Your task to perform on an android device: View the shopping cart on bestbuy. Image 0: 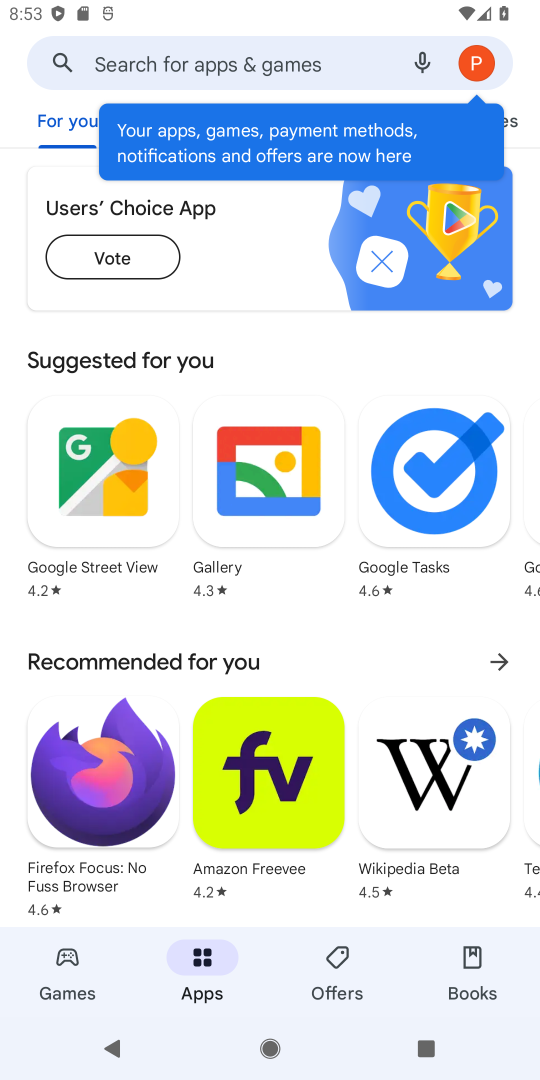
Step 0: click (206, 61)
Your task to perform on an android device: View the shopping cart on bestbuy. Image 1: 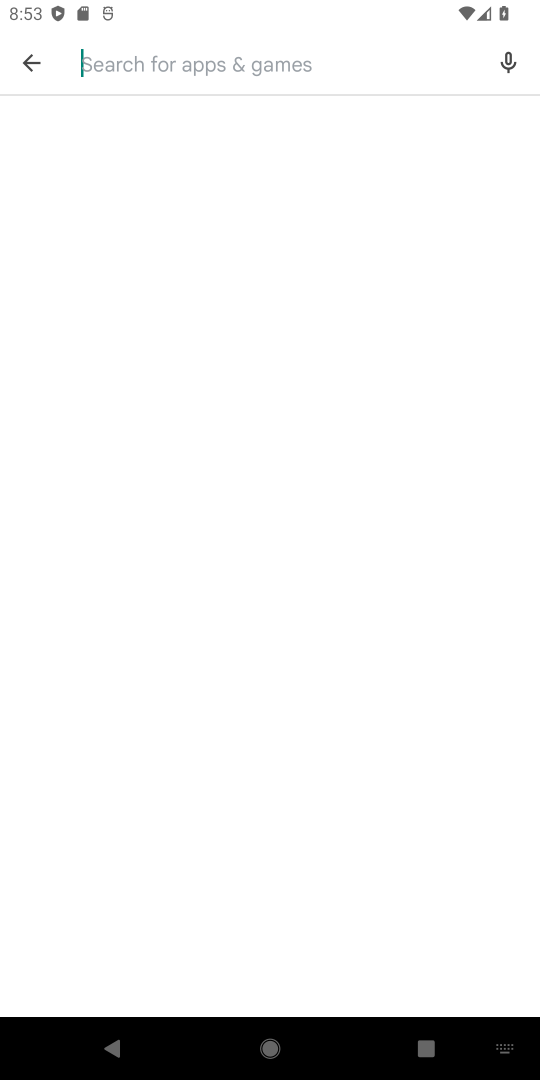
Step 1: type "bestbuy"
Your task to perform on an android device: View the shopping cart on bestbuy. Image 2: 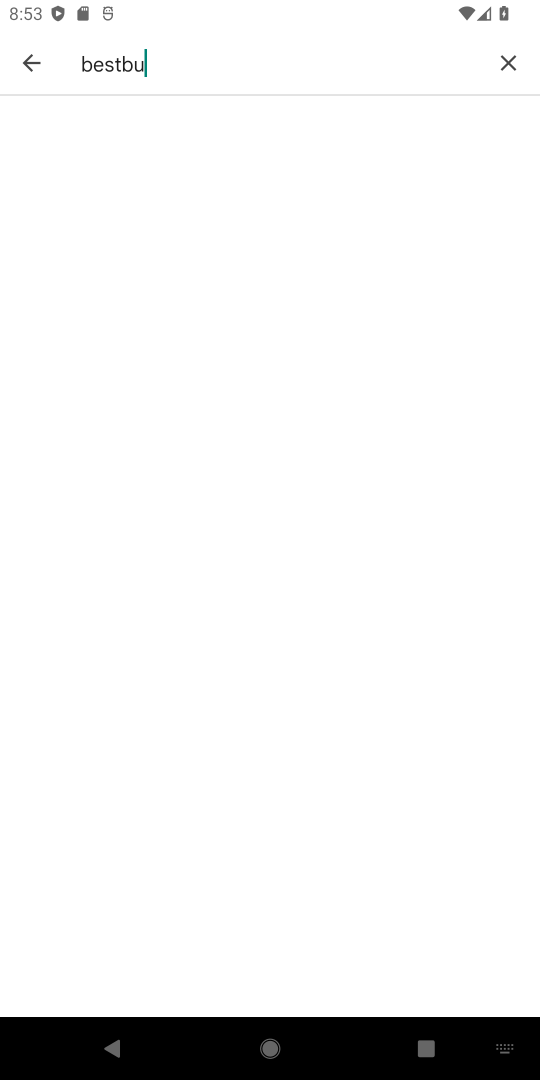
Step 2: type ""
Your task to perform on an android device: View the shopping cart on bestbuy. Image 3: 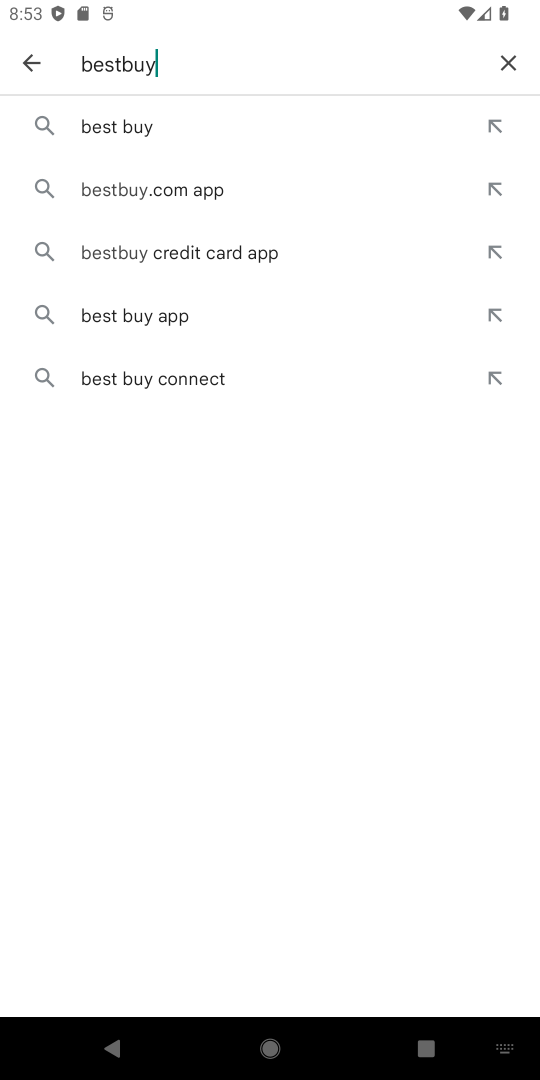
Step 3: press enter
Your task to perform on an android device: View the shopping cart on bestbuy. Image 4: 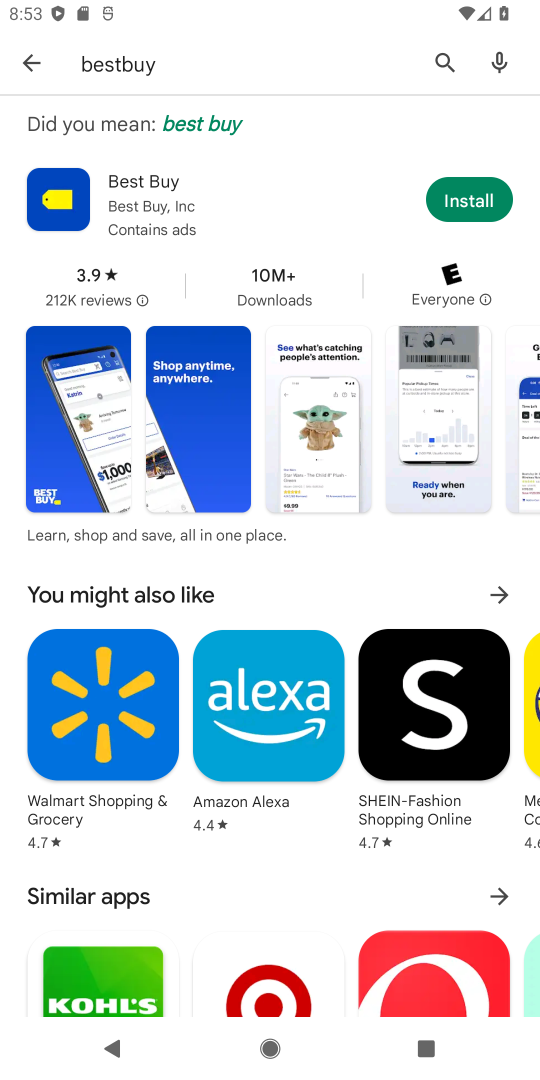
Step 4: press home button
Your task to perform on an android device: View the shopping cart on bestbuy. Image 5: 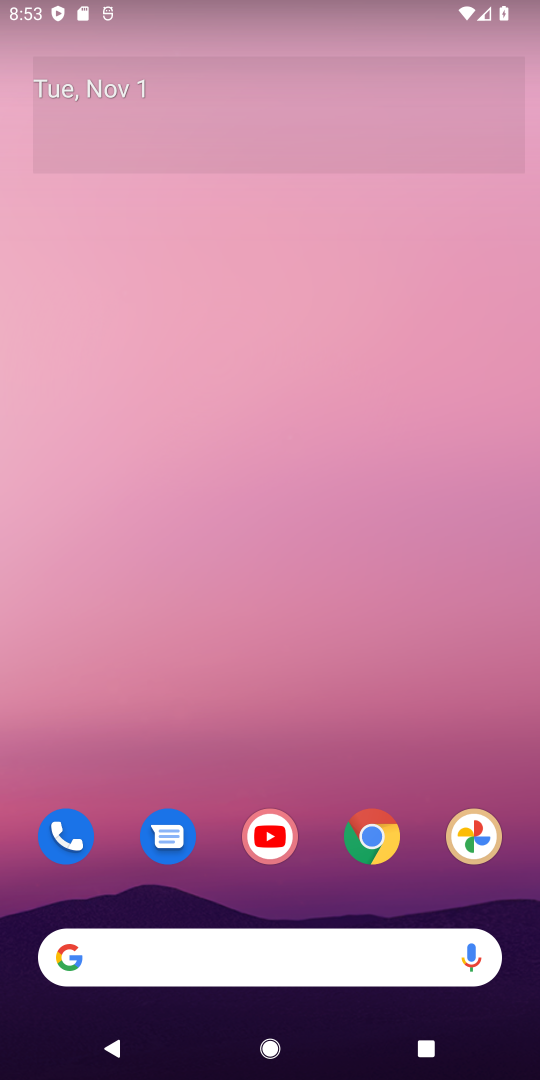
Step 5: click (367, 841)
Your task to perform on an android device: View the shopping cart on bestbuy. Image 6: 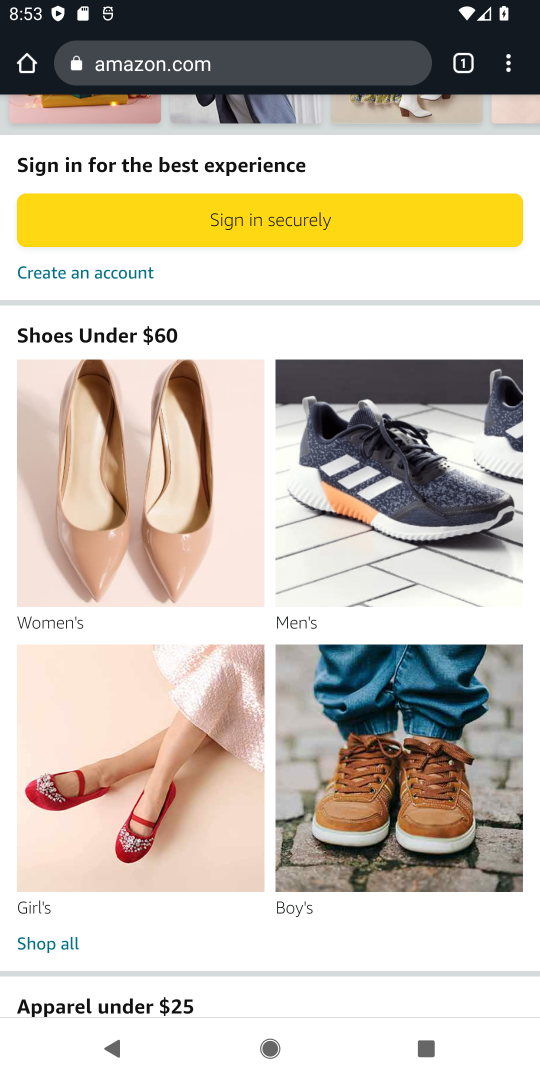
Step 6: click (152, 70)
Your task to perform on an android device: View the shopping cart on bestbuy. Image 7: 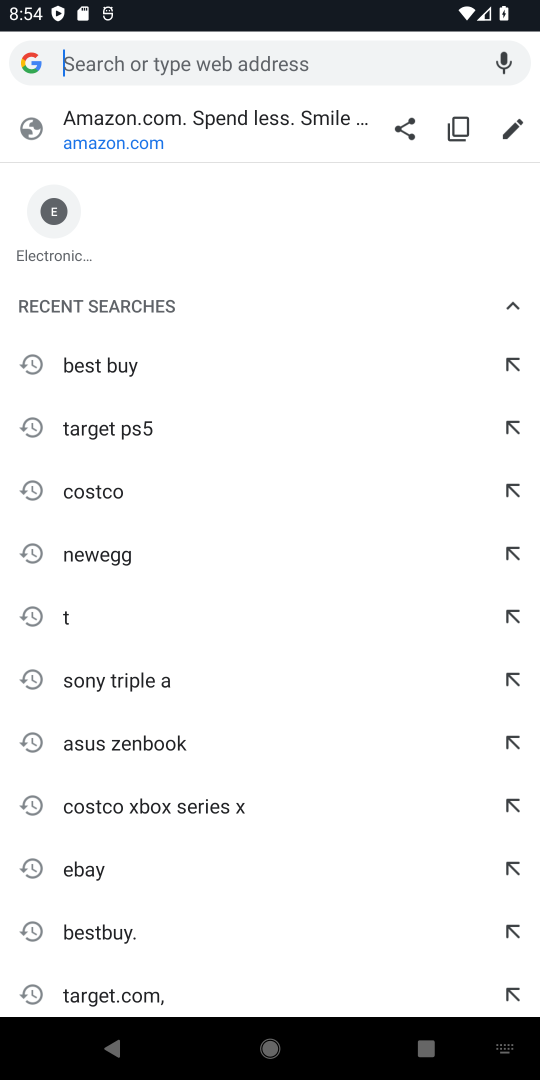
Step 7: type "bestbuy"
Your task to perform on an android device: View the shopping cart on bestbuy. Image 8: 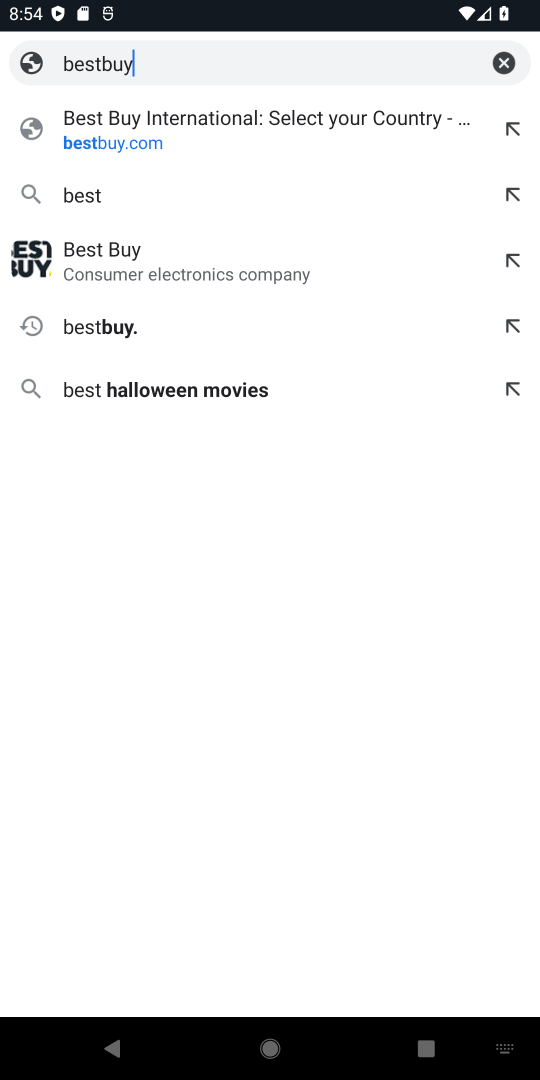
Step 8: type ""
Your task to perform on an android device: View the shopping cart on bestbuy. Image 9: 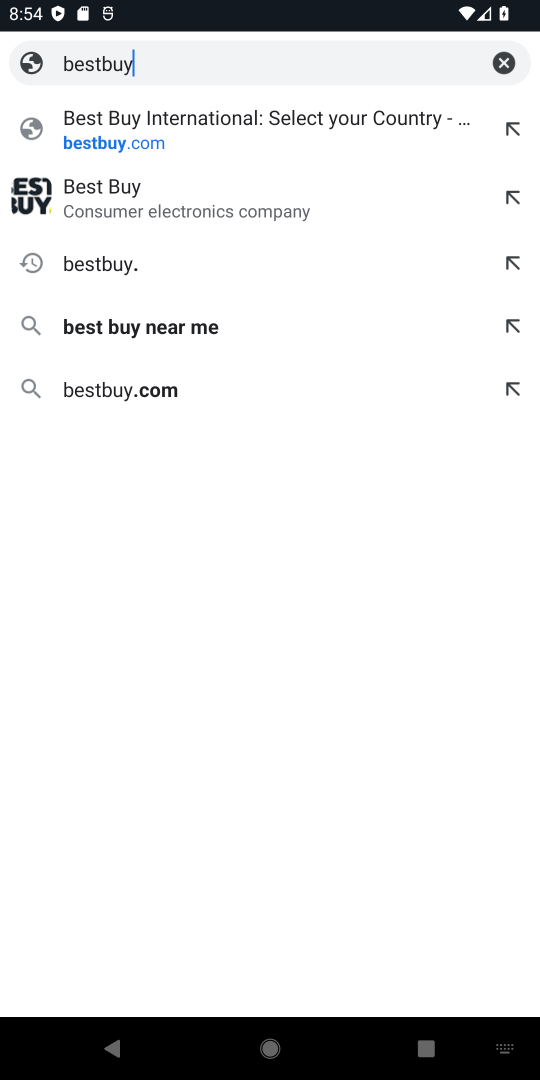
Step 9: click (251, 132)
Your task to perform on an android device: View the shopping cart on bestbuy. Image 10: 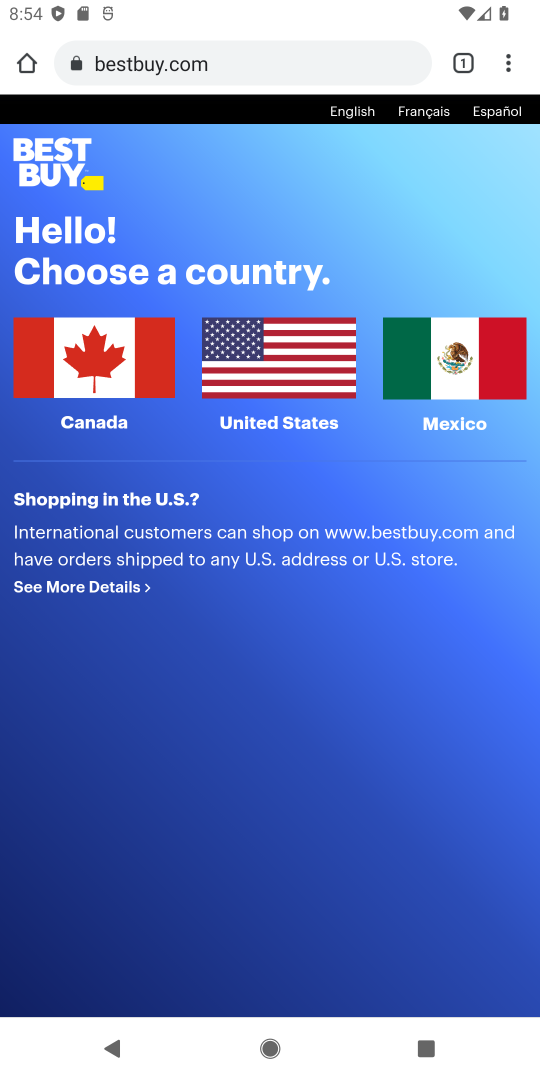
Step 10: click (135, 369)
Your task to perform on an android device: View the shopping cart on bestbuy. Image 11: 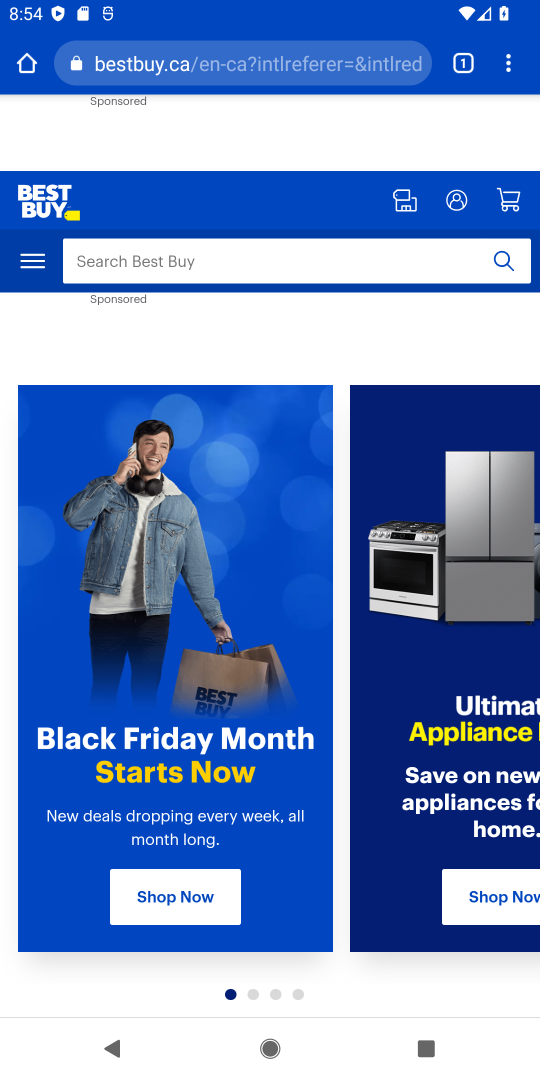
Step 11: click (503, 193)
Your task to perform on an android device: View the shopping cart on bestbuy. Image 12: 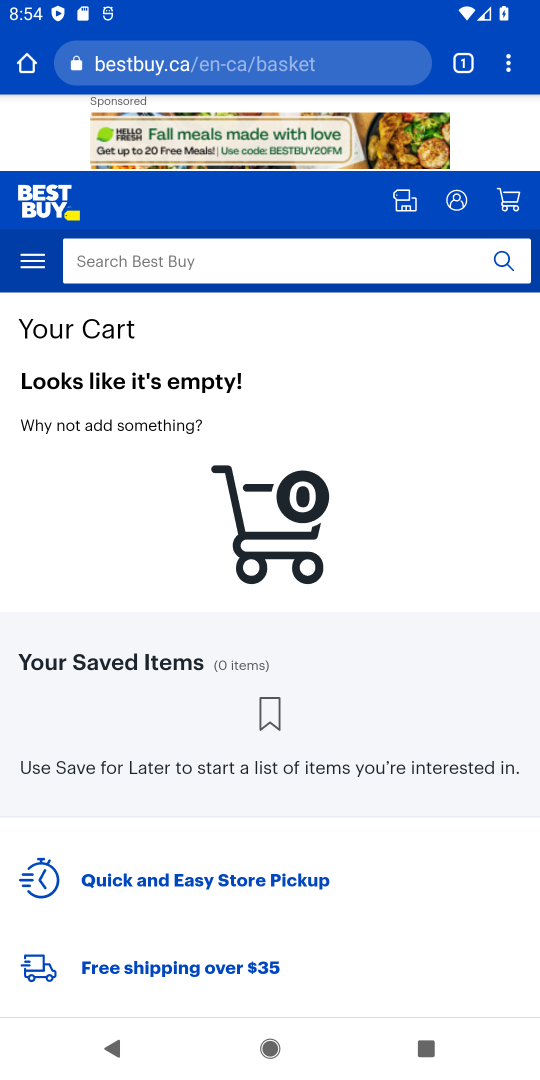
Step 12: drag from (278, 698) to (343, 375)
Your task to perform on an android device: View the shopping cart on bestbuy. Image 13: 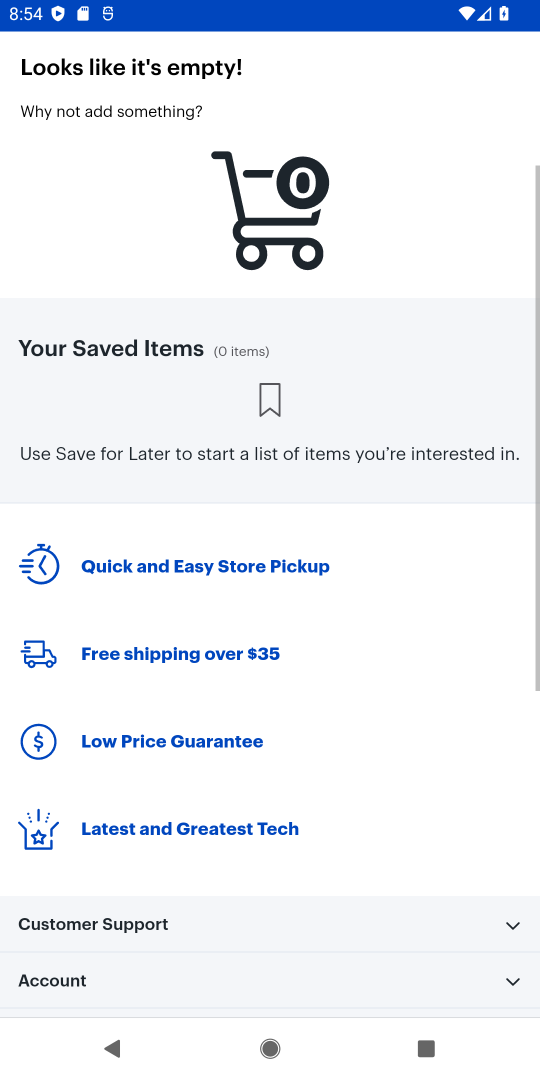
Step 13: drag from (275, 749) to (346, 379)
Your task to perform on an android device: View the shopping cart on bestbuy. Image 14: 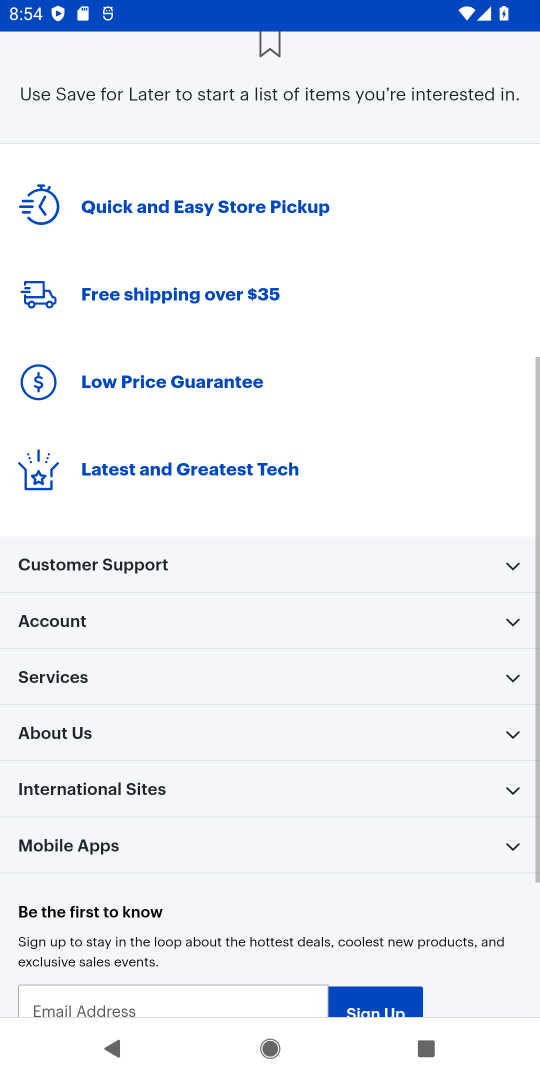
Step 14: drag from (305, 814) to (333, 471)
Your task to perform on an android device: View the shopping cart on bestbuy. Image 15: 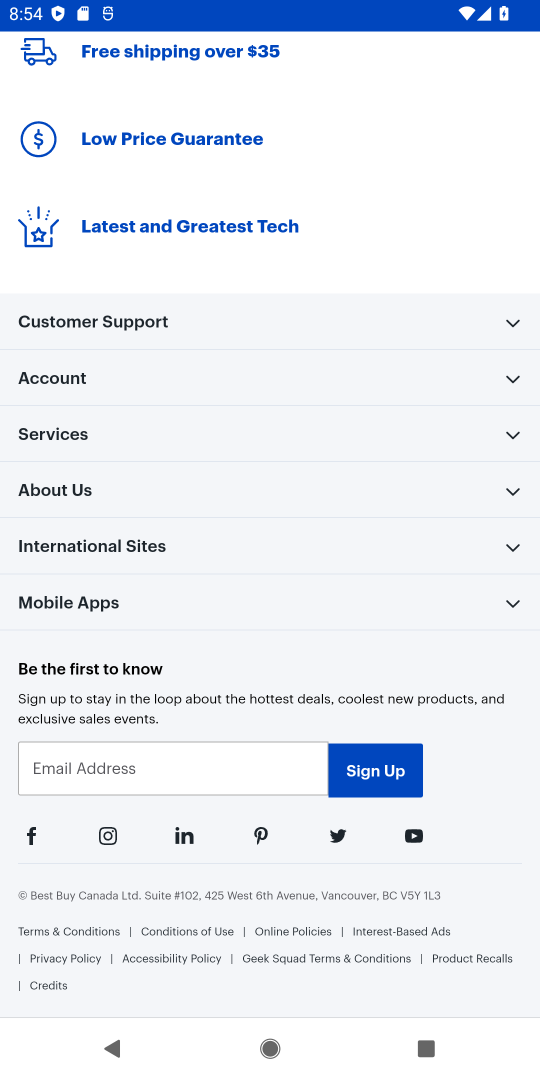
Step 15: drag from (412, 490) to (412, 298)
Your task to perform on an android device: View the shopping cart on bestbuy. Image 16: 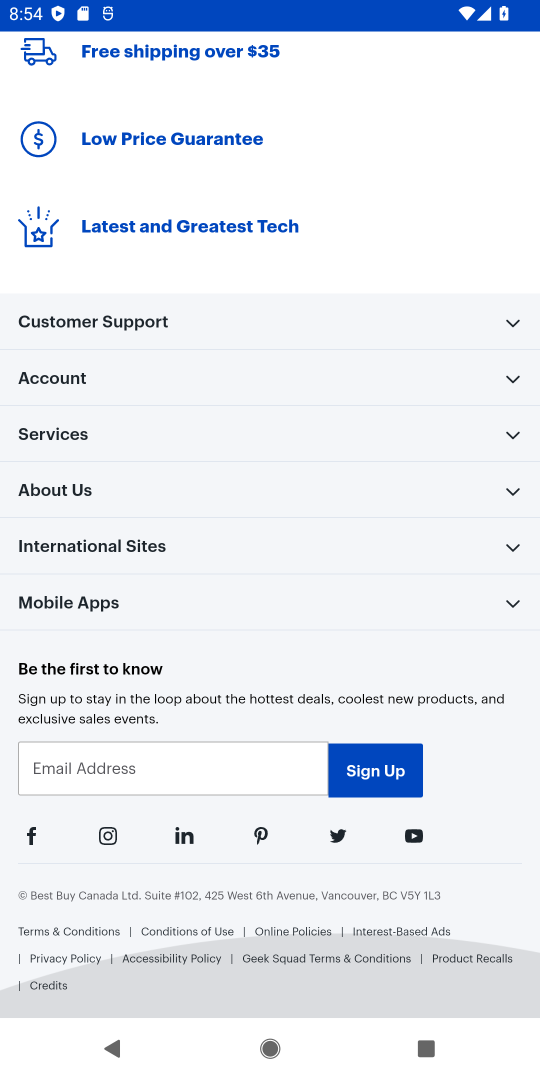
Step 16: drag from (400, 400) to (412, 314)
Your task to perform on an android device: View the shopping cart on bestbuy. Image 17: 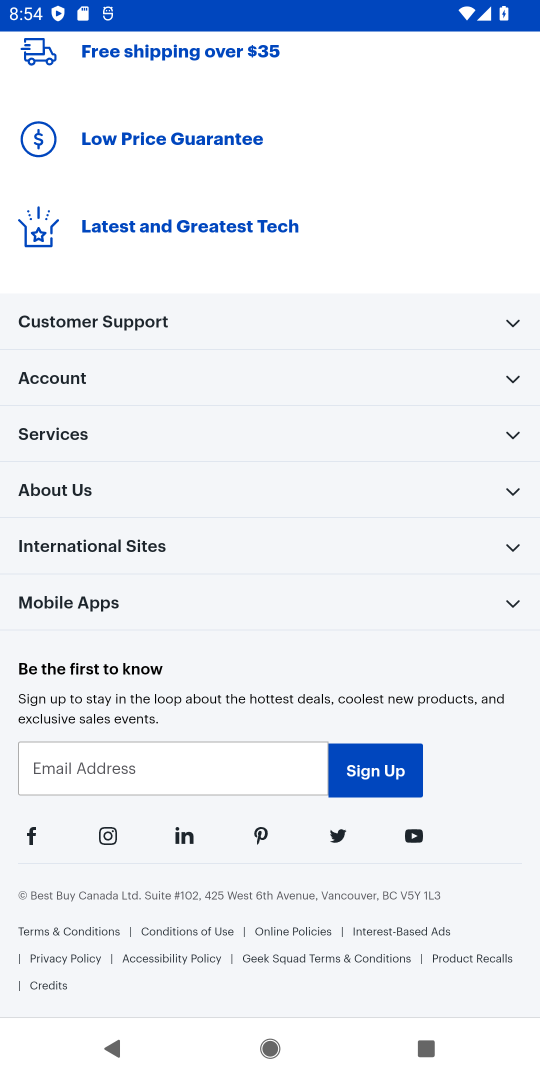
Step 17: drag from (263, 292) to (276, 774)
Your task to perform on an android device: View the shopping cart on bestbuy. Image 18: 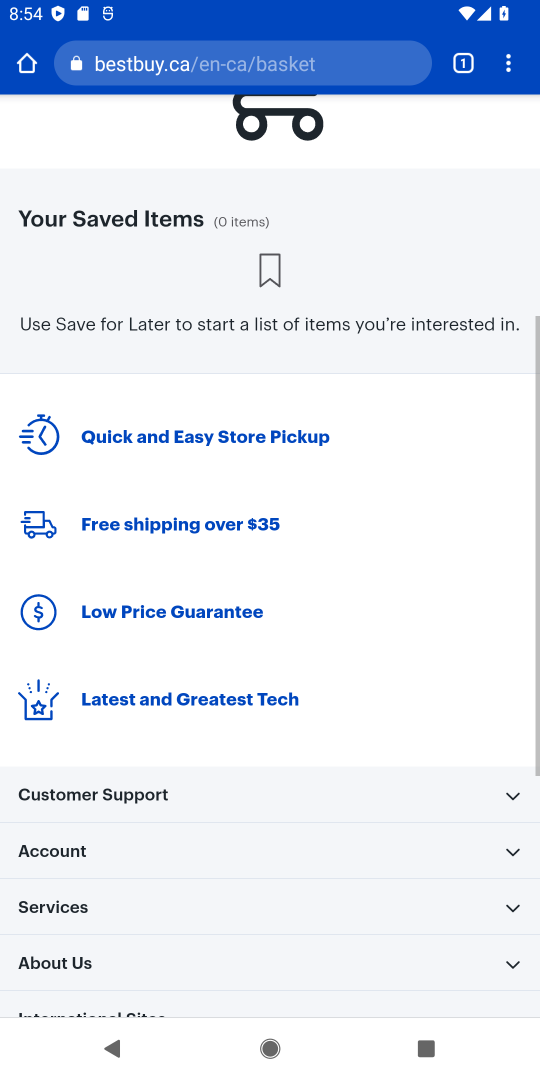
Step 18: drag from (375, 296) to (382, 672)
Your task to perform on an android device: View the shopping cart on bestbuy. Image 19: 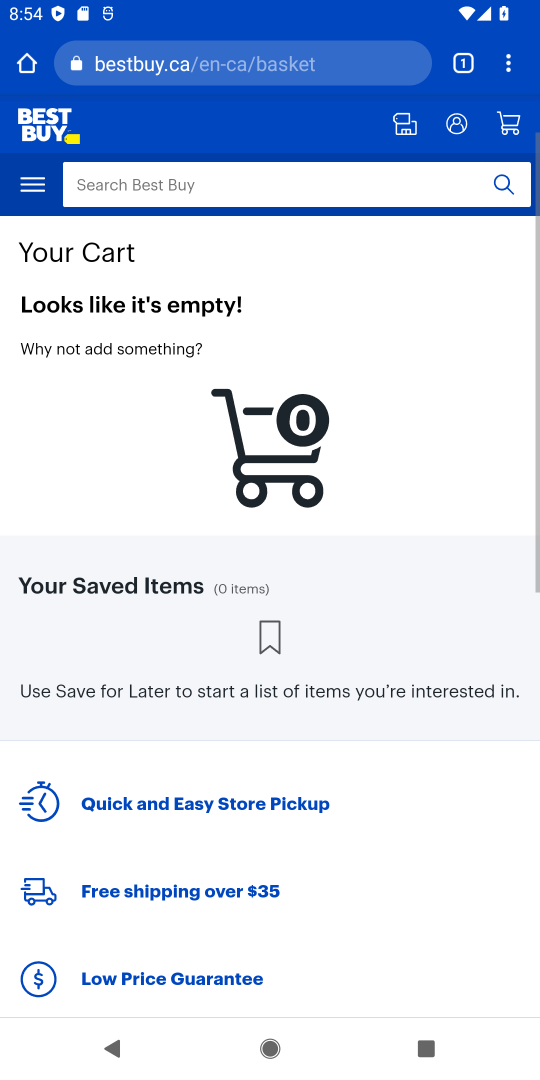
Step 19: drag from (396, 347) to (416, 588)
Your task to perform on an android device: View the shopping cart on bestbuy. Image 20: 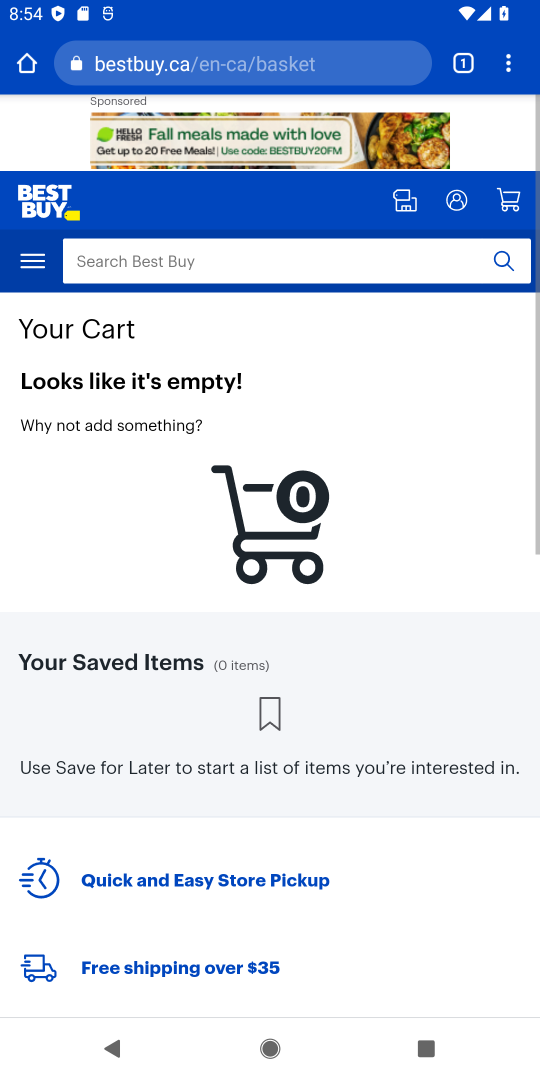
Step 20: drag from (353, 376) to (351, 510)
Your task to perform on an android device: View the shopping cart on bestbuy. Image 21: 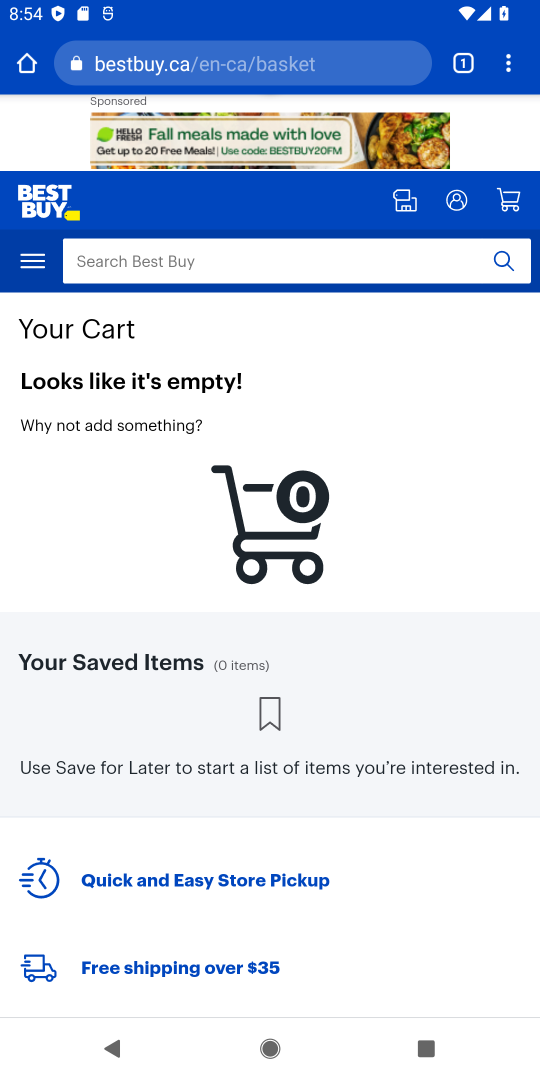
Step 21: press back button
Your task to perform on an android device: View the shopping cart on bestbuy. Image 22: 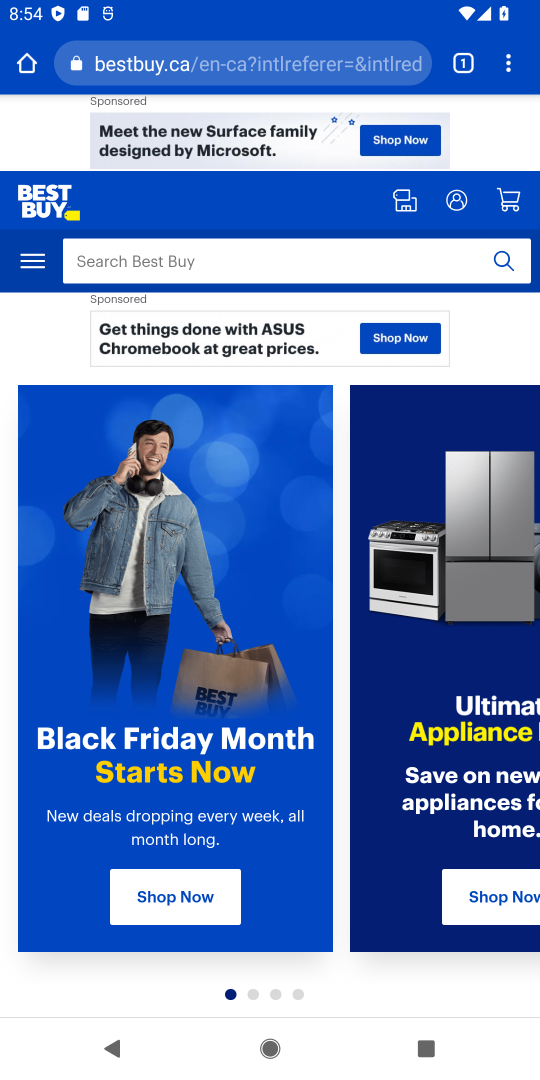
Step 22: click (510, 208)
Your task to perform on an android device: View the shopping cart on bestbuy. Image 23: 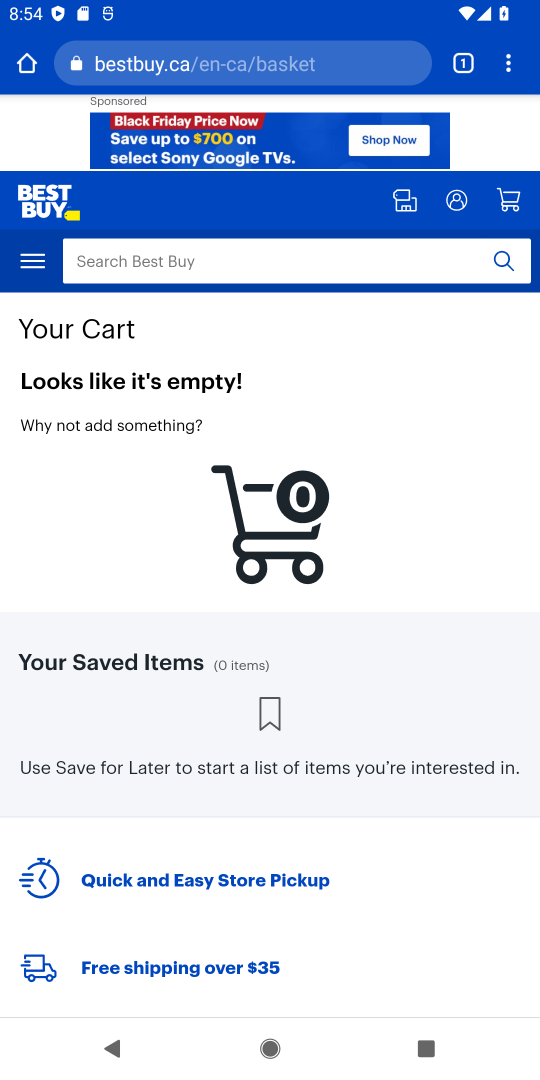
Step 23: drag from (326, 731) to (349, 339)
Your task to perform on an android device: View the shopping cart on bestbuy. Image 24: 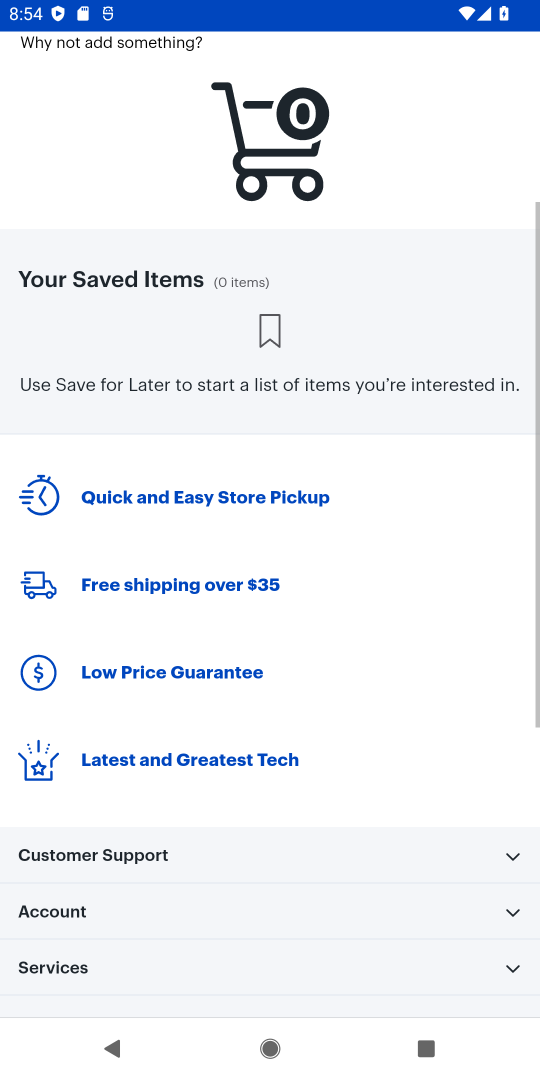
Step 24: drag from (313, 662) to (347, 477)
Your task to perform on an android device: View the shopping cart on bestbuy. Image 25: 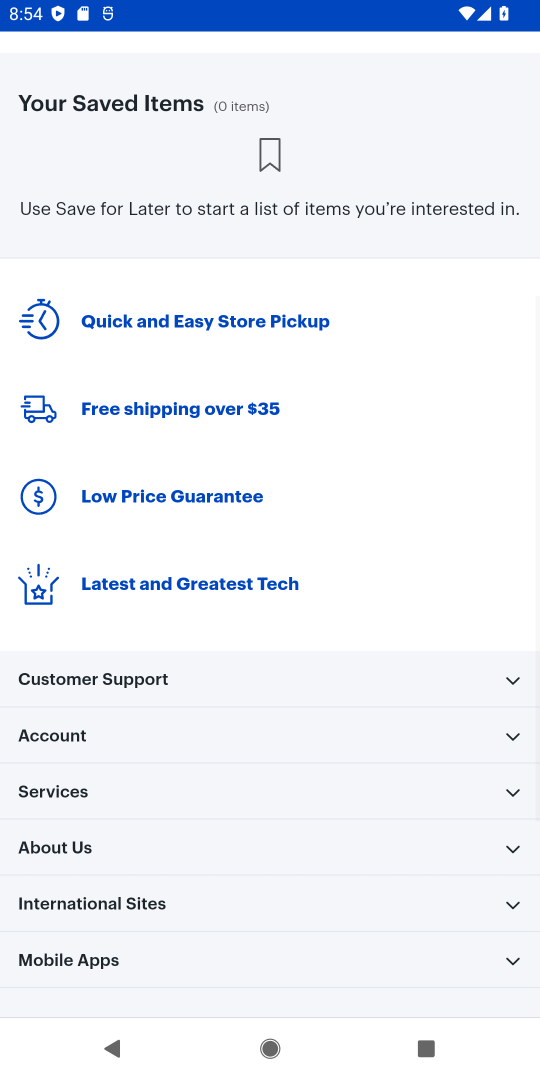
Step 25: press back button
Your task to perform on an android device: View the shopping cart on bestbuy. Image 26: 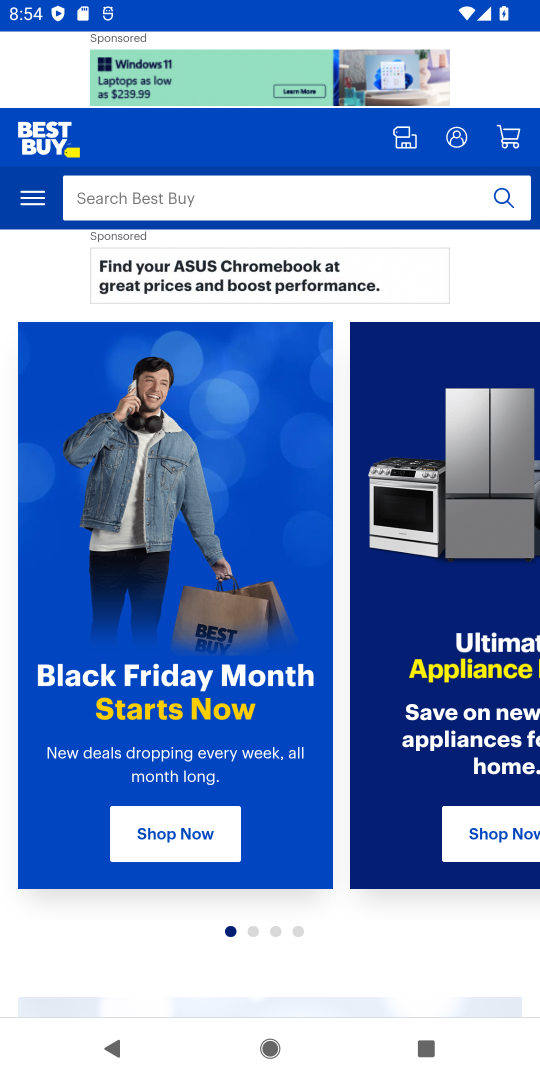
Step 26: drag from (385, 790) to (362, 398)
Your task to perform on an android device: View the shopping cart on bestbuy. Image 27: 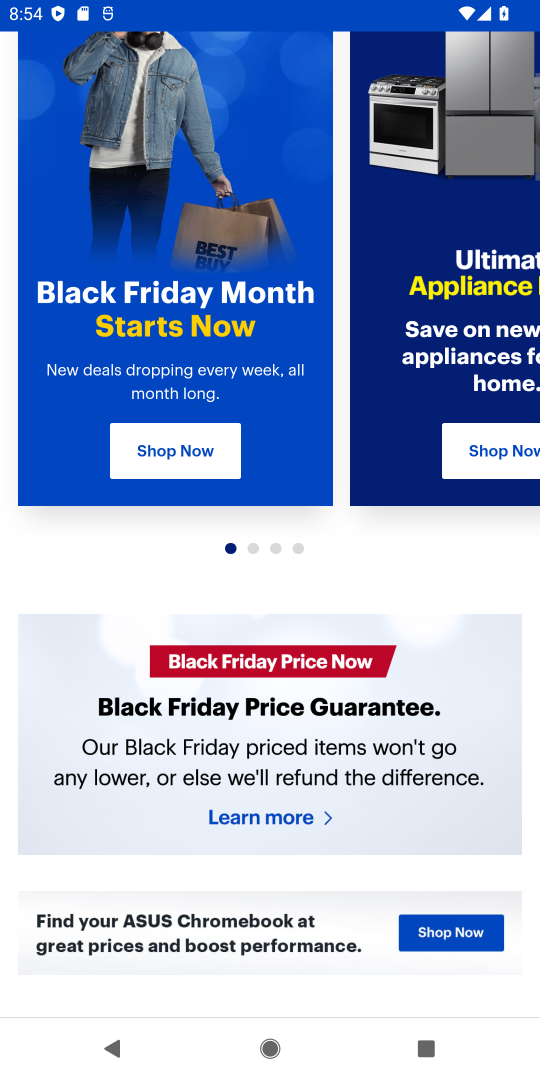
Step 27: drag from (356, 655) to (370, 441)
Your task to perform on an android device: View the shopping cart on bestbuy. Image 28: 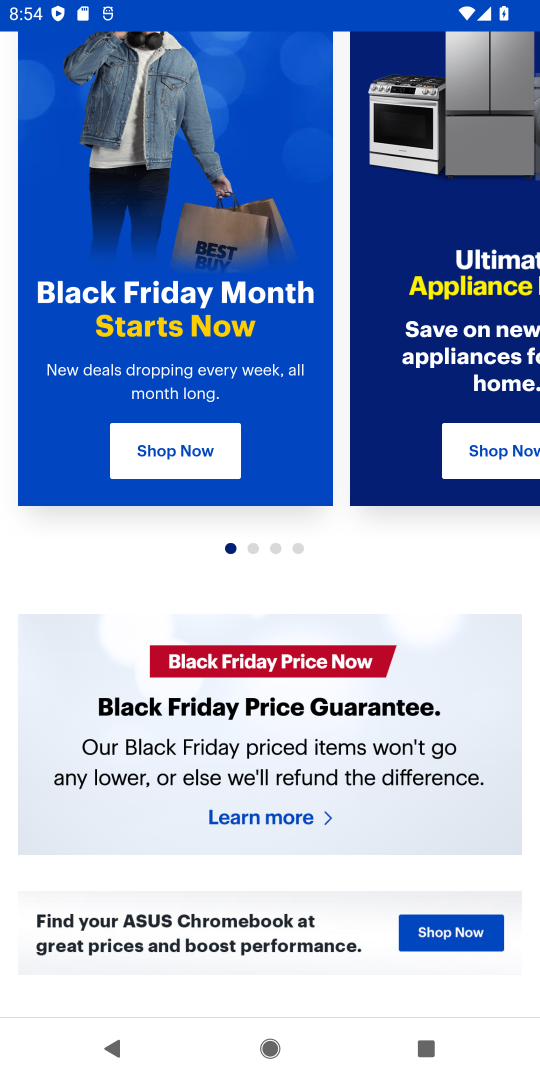
Step 28: drag from (333, 748) to (368, 422)
Your task to perform on an android device: View the shopping cart on bestbuy. Image 29: 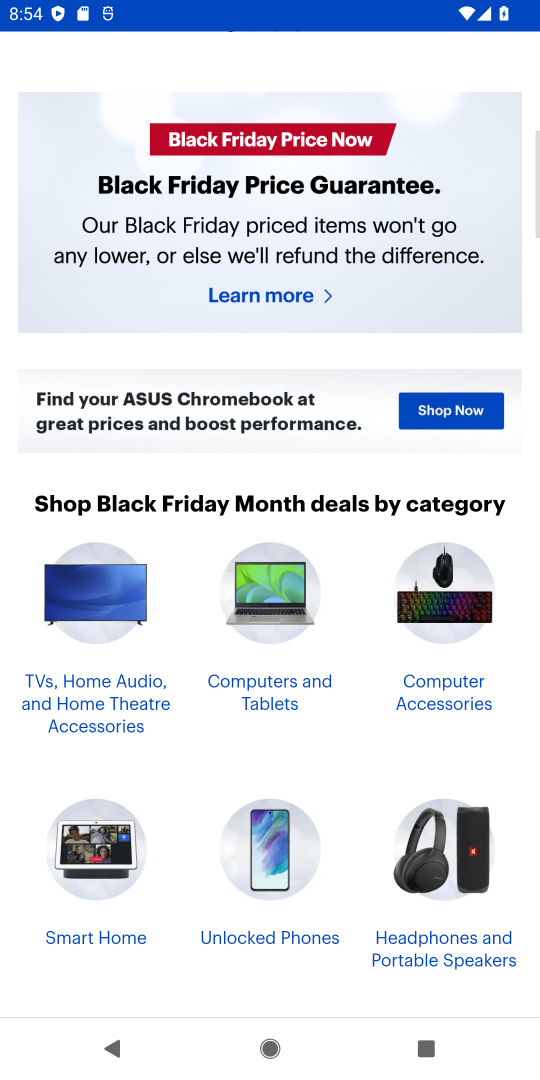
Step 29: drag from (313, 431) to (331, 309)
Your task to perform on an android device: View the shopping cart on bestbuy. Image 30: 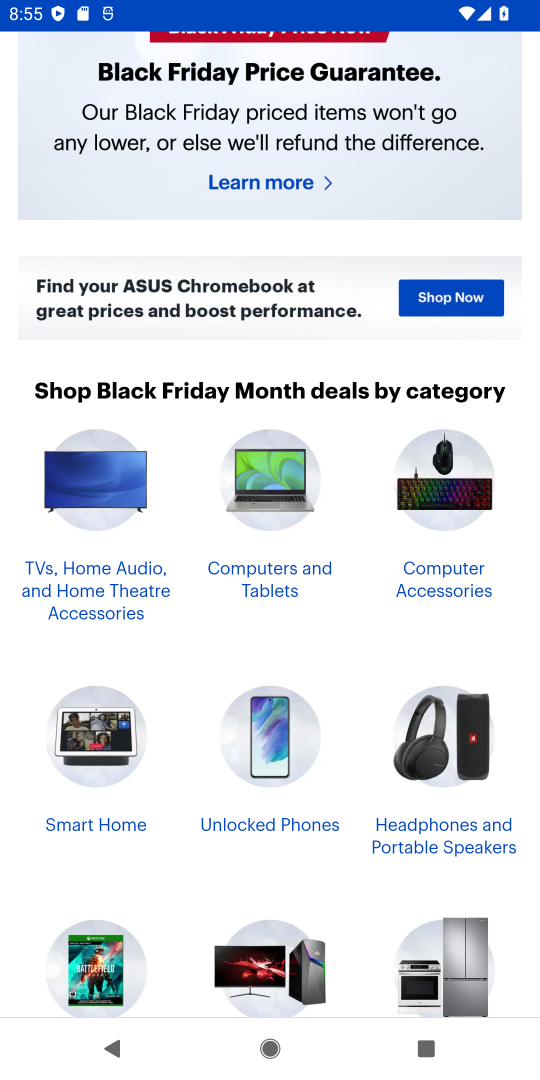
Step 30: click (265, 549)
Your task to perform on an android device: View the shopping cart on bestbuy. Image 31: 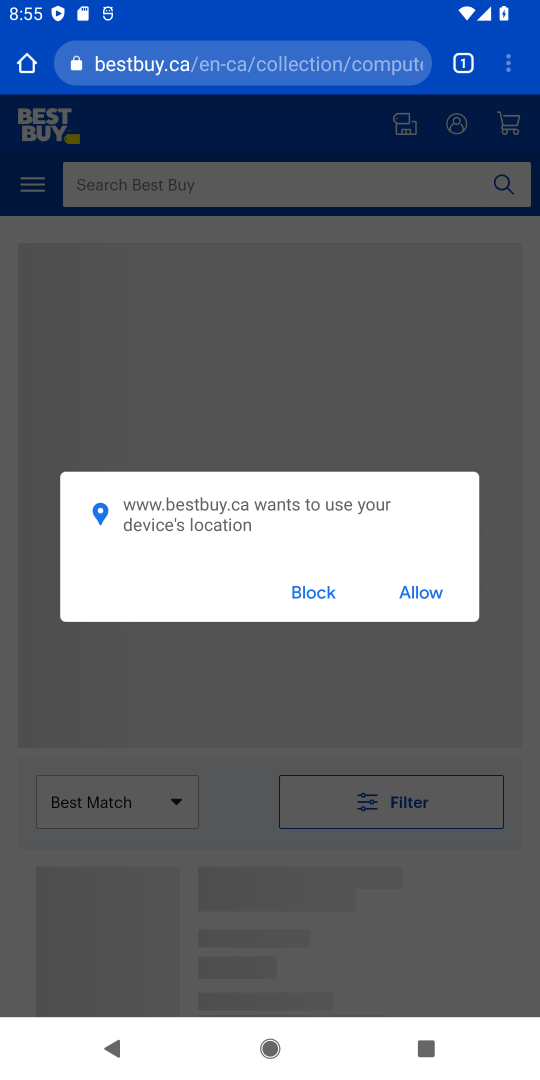
Step 31: click (301, 588)
Your task to perform on an android device: View the shopping cart on bestbuy. Image 32: 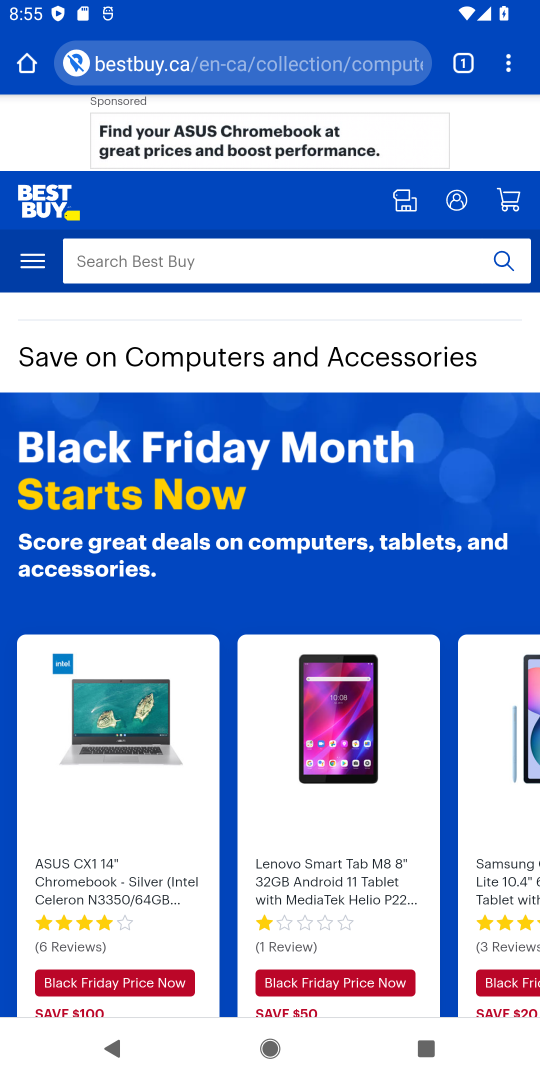
Step 32: drag from (385, 824) to (357, 416)
Your task to perform on an android device: View the shopping cart on bestbuy. Image 33: 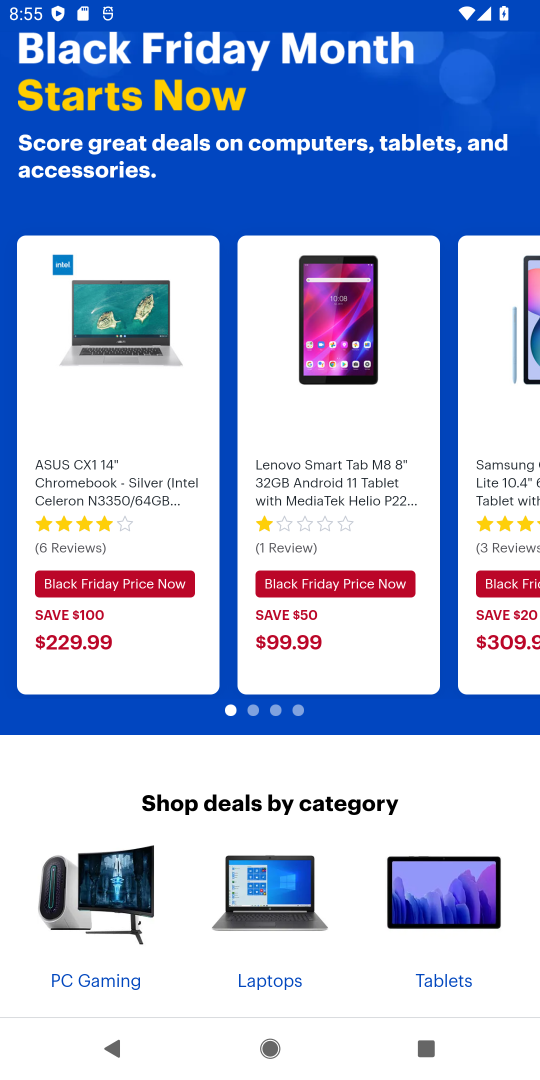
Step 33: drag from (330, 569) to (337, 263)
Your task to perform on an android device: View the shopping cart on bestbuy. Image 34: 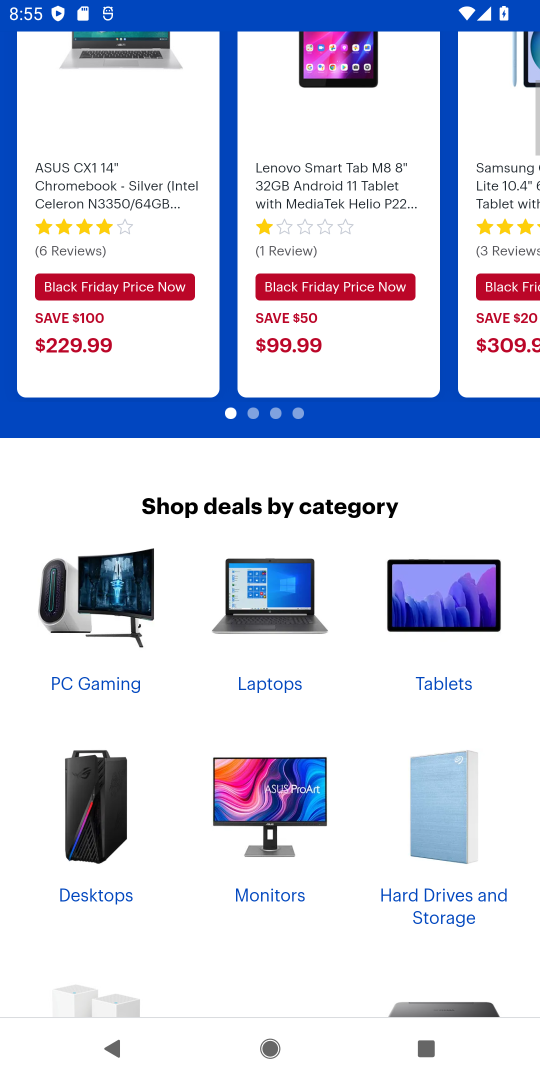
Step 34: drag from (313, 568) to (355, 247)
Your task to perform on an android device: View the shopping cart on bestbuy. Image 35: 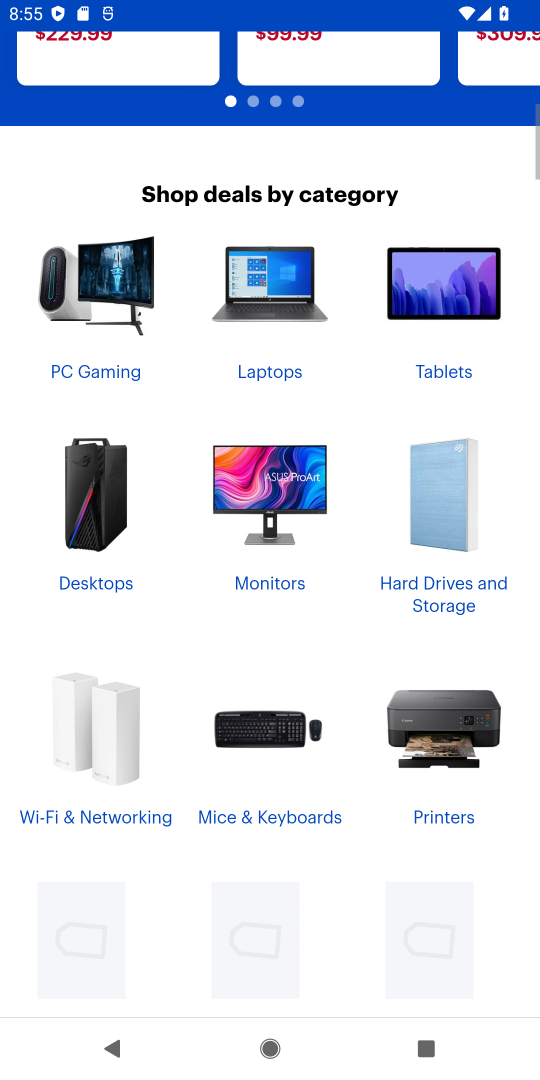
Step 35: drag from (340, 407) to (369, 328)
Your task to perform on an android device: View the shopping cart on bestbuy. Image 36: 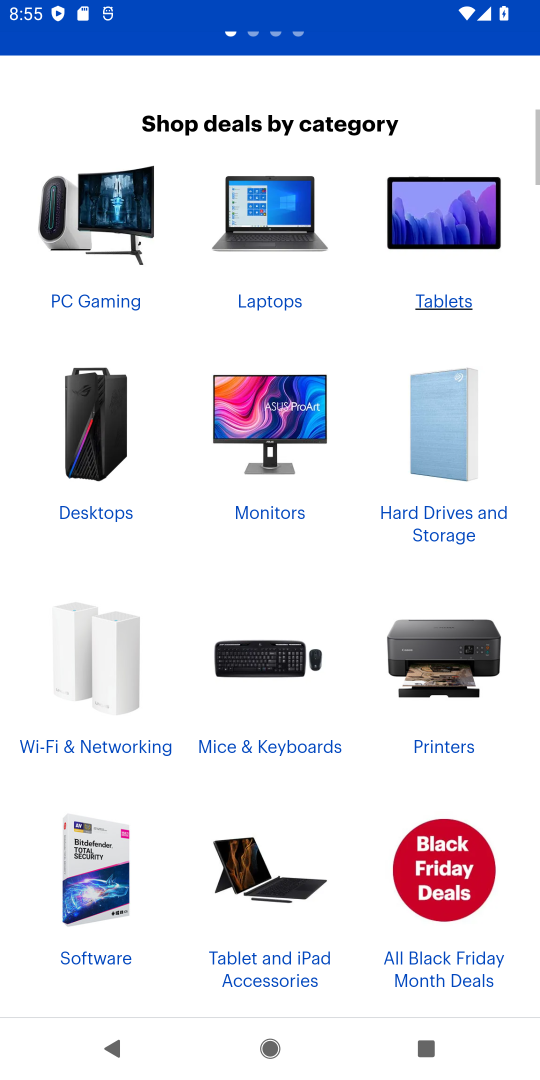
Step 36: click (437, 301)
Your task to perform on an android device: View the shopping cart on bestbuy. Image 37: 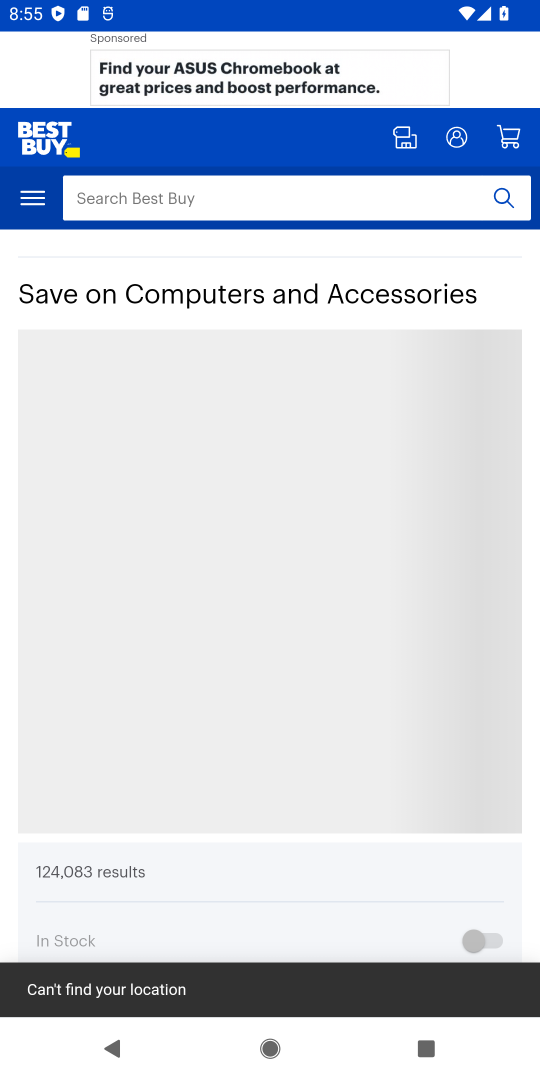
Step 37: click (463, 246)
Your task to perform on an android device: View the shopping cart on bestbuy. Image 38: 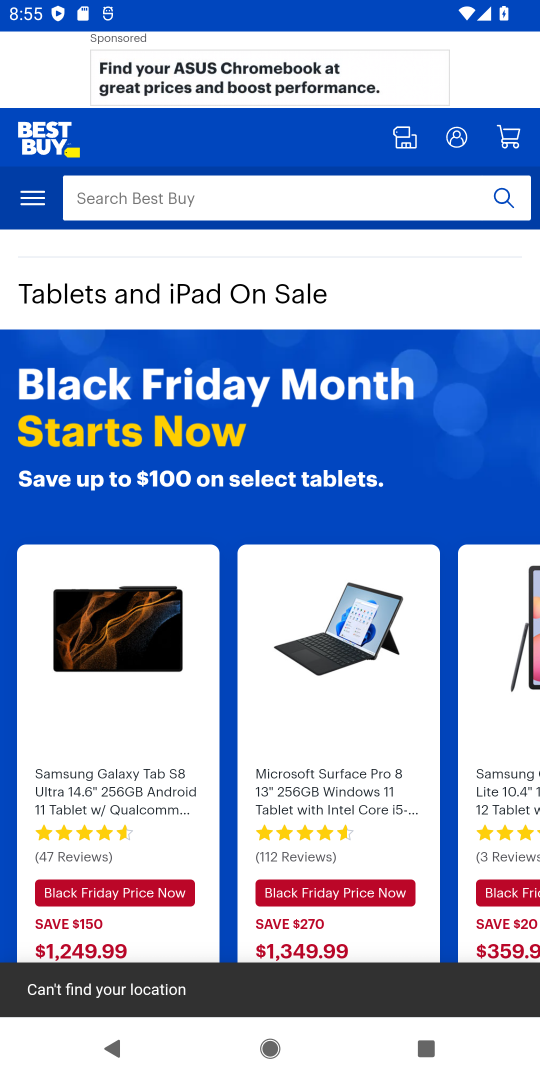
Step 38: task complete